Your task to perform on an android device: Clear all items from cart on walmart. Search for logitech g910 on walmart, select the first entry, add it to the cart, then select checkout. Image 0: 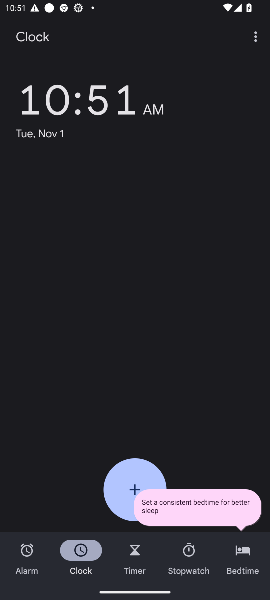
Step 0: press home button
Your task to perform on an android device: Clear all items from cart on walmart. Search for logitech g910 on walmart, select the first entry, add it to the cart, then select checkout. Image 1: 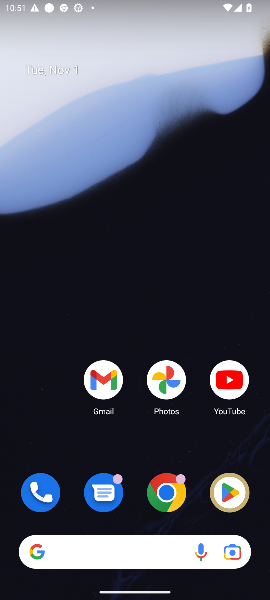
Step 1: click (171, 482)
Your task to perform on an android device: Clear all items from cart on walmart. Search for logitech g910 on walmart, select the first entry, add it to the cart, then select checkout. Image 2: 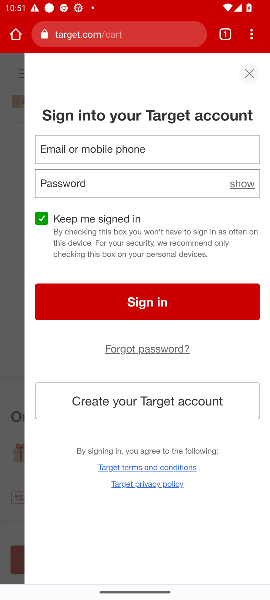
Step 2: click (129, 42)
Your task to perform on an android device: Clear all items from cart on walmart. Search for logitech g910 on walmart, select the first entry, add it to the cart, then select checkout. Image 3: 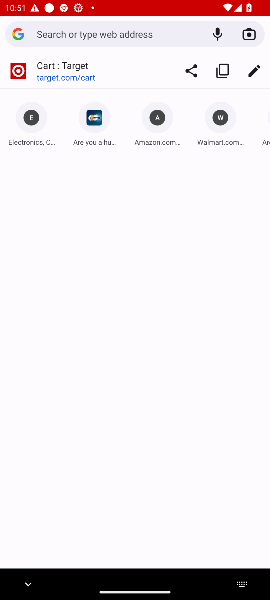
Step 3: type "walmart"
Your task to perform on an android device: Clear all items from cart on walmart. Search for logitech g910 on walmart, select the first entry, add it to the cart, then select checkout. Image 4: 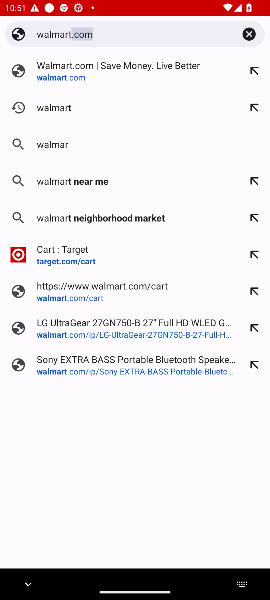
Step 4: type ""
Your task to perform on an android device: Clear all items from cart on walmart. Search for logitech g910 on walmart, select the first entry, add it to the cart, then select checkout. Image 5: 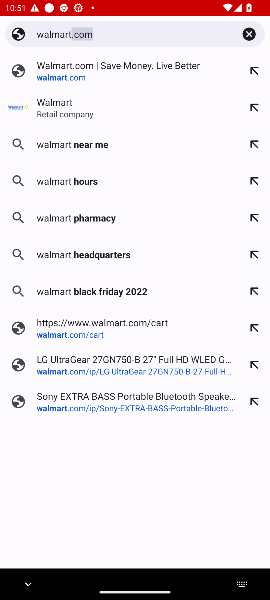
Step 5: click (91, 70)
Your task to perform on an android device: Clear all items from cart on walmart. Search for logitech g910 on walmart, select the first entry, add it to the cart, then select checkout. Image 6: 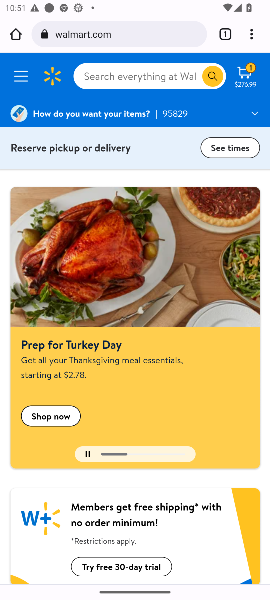
Step 6: click (247, 81)
Your task to perform on an android device: Clear all items from cart on walmart. Search for logitech g910 on walmart, select the first entry, add it to the cart, then select checkout. Image 7: 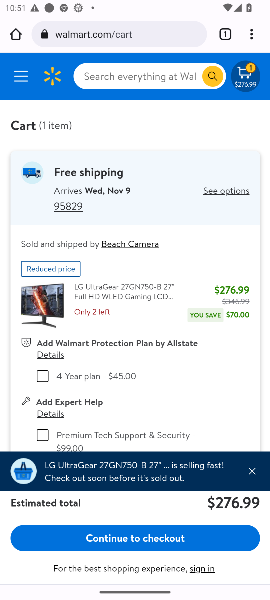
Step 7: drag from (187, 377) to (206, 262)
Your task to perform on an android device: Clear all items from cart on walmart. Search for logitech g910 on walmart, select the first entry, add it to the cart, then select checkout. Image 8: 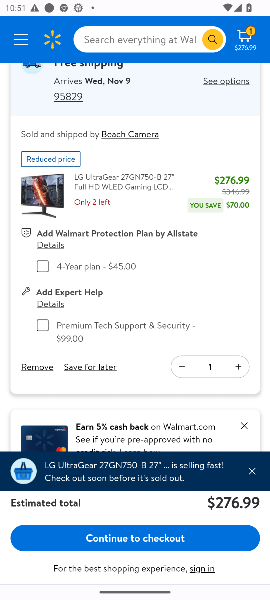
Step 8: click (37, 366)
Your task to perform on an android device: Clear all items from cart on walmart. Search for logitech g910 on walmart, select the first entry, add it to the cart, then select checkout. Image 9: 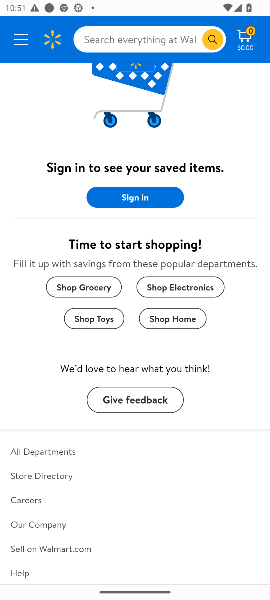
Step 9: press back button
Your task to perform on an android device: Clear all items from cart on walmart. Search for logitech g910 on walmart, select the first entry, add it to the cart, then select checkout. Image 10: 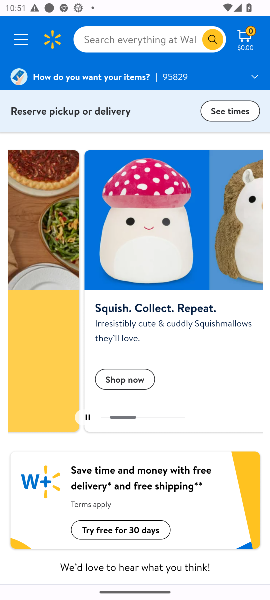
Step 10: click (150, 37)
Your task to perform on an android device: Clear all items from cart on walmart. Search for logitech g910 on walmart, select the first entry, add it to the cart, then select checkout. Image 11: 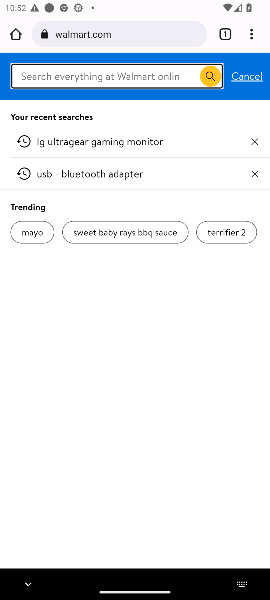
Step 11: type "logitech g910"
Your task to perform on an android device: Clear all items from cart on walmart. Search for logitech g910 on walmart, select the first entry, add it to the cart, then select checkout. Image 12: 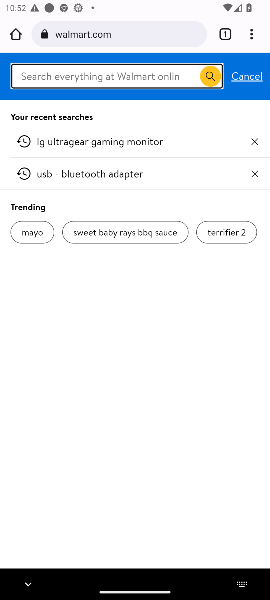
Step 12: type ""
Your task to perform on an android device: Clear all items from cart on walmart. Search for logitech g910 on walmart, select the first entry, add it to the cart, then select checkout. Image 13: 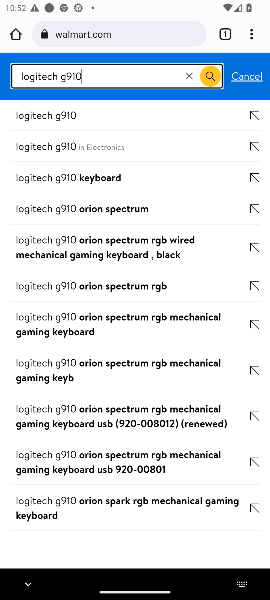
Step 13: click (87, 149)
Your task to perform on an android device: Clear all items from cart on walmart. Search for logitech g910 on walmart, select the first entry, add it to the cart, then select checkout. Image 14: 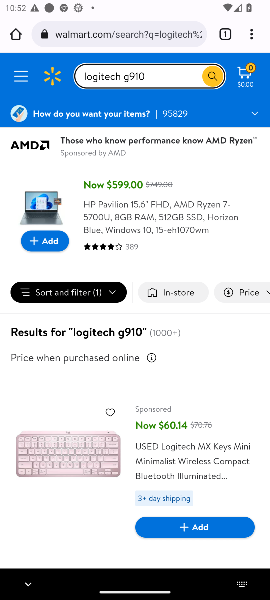
Step 14: drag from (169, 428) to (174, 360)
Your task to perform on an android device: Clear all items from cart on walmart. Search for logitech g910 on walmart, select the first entry, add it to the cart, then select checkout. Image 15: 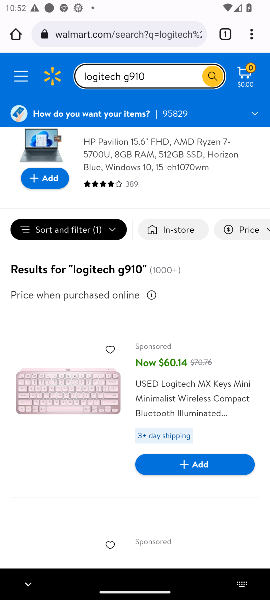
Step 15: press back button
Your task to perform on an android device: Clear all items from cart on walmart. Search for logitech g910 on walmart, select the first entry, add it to the cart, then select checkout. Image 16: 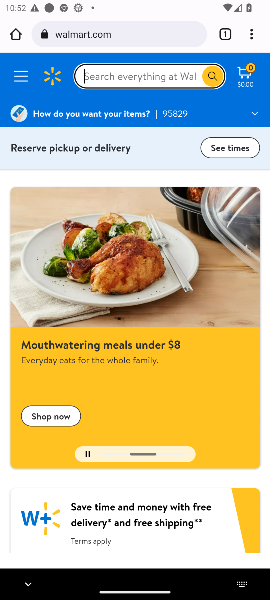
Step 16: type "logitech g910"
Your task to perform on an android device: Clear all items from cart on walmart. Search for logitech g910 on walmart, select the first entry, add it to the cart, then select checkout. Image 17: 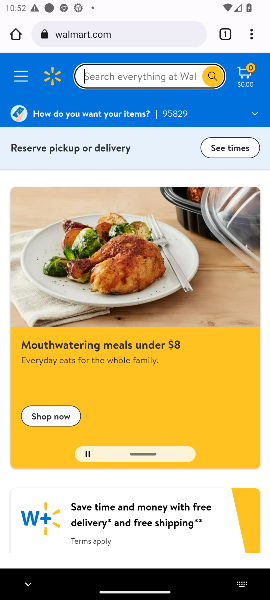
Step 17: type ""
Your task to perform on an android device: Clear all items from cart on walmart. Search for logitech g910 on walmart, select the first entry, add it to the cart, then select checkout. Image 18: 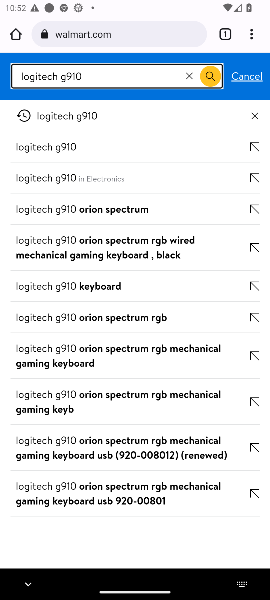
Step 18: click (61, 151)
Your task to perform on an android device: Clear all items from cart on walmart. Search for logitech g910 on walmart, select the first entry, add it to the cart, then select checkout. Image 19: 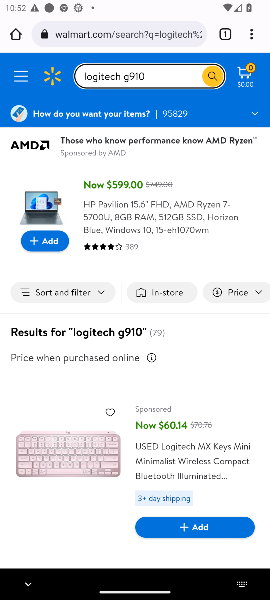
Step 19: drag from (152, 435) to (166, 196)
Your task to perform on an android device: Clear all items from cart on walmart. Search for logitech g910 on walmart, select the first entry, add it to the cart, then select checkout. Image 20: 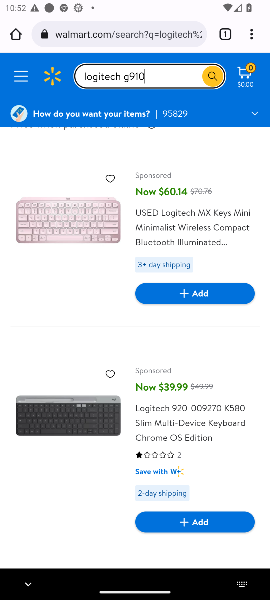
Step 20: drag from (170, 451) to (181, 588)
Your task to perform on an android device: Clear all items from cart on walmart. Search for logitech g910 on walmart, select the first entry, add it to the cart, then select checkout. Image 21: 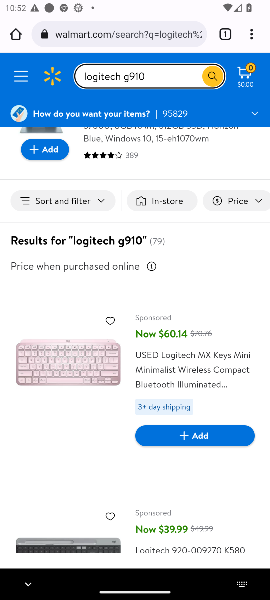
Step 21: click (84, 362)
Your task to perform on an android device: Clear all items from cart on walmart. Search for logitech g910 on walmart, select the first entry, add it to the cart, then select checkout. Image 22: 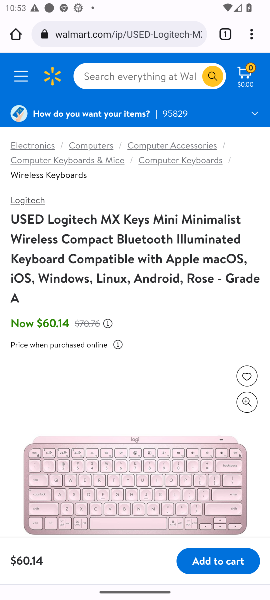
Step 22: click (224, 561)
Your task to perform on an android device: Clear all items from cart on walmart. Search for logitech g910 on walmart, select the first entry, add it to the cart, then select checkout. Image 23: 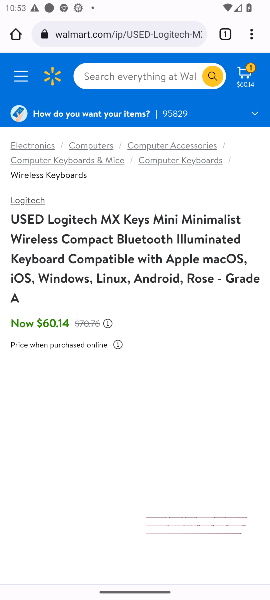
Step 23: click (247, 72)
Your task to perform on an android device: Clear all items from cart on walmart. Search for logitech g910 on walmart, select the first entry, add it to the cart, then select checkout. Image 24: 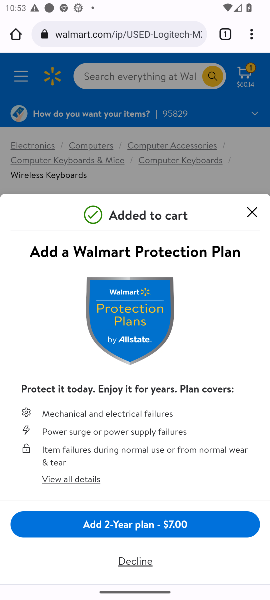
Step 24: click (125, 561)
Your task to perform on an android device: Clear all items from cart on walmart. Search for logitech g910 on walmart, select the first entry, add it to the cart, then select checkout. Image 25: 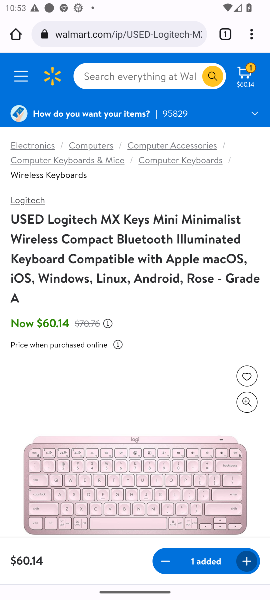
Step 25: click (246, 83)
Your task to perform on an android device: Clear all items from cart on walmart. Search for logitech g910 on walmart, select the first entry, add it to the cart, then select checkout. Image 26: 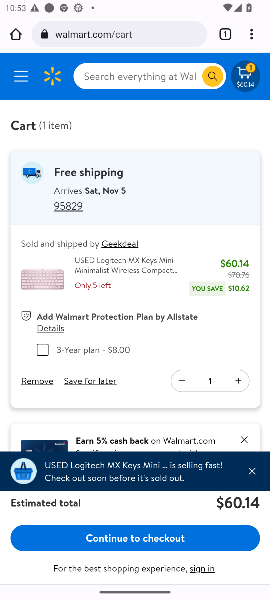
Step 26: click (155, 540)
Your task to perform on an android device: Clear all items from cart on walmart. Search for logitech g910 on walmart, select the first entry, add it to the cart, then select checkout. Image 27: 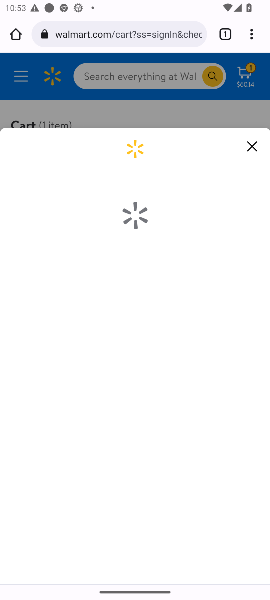
Step 27: task complete